Your task to perform on an android device: Open maps Image 0: 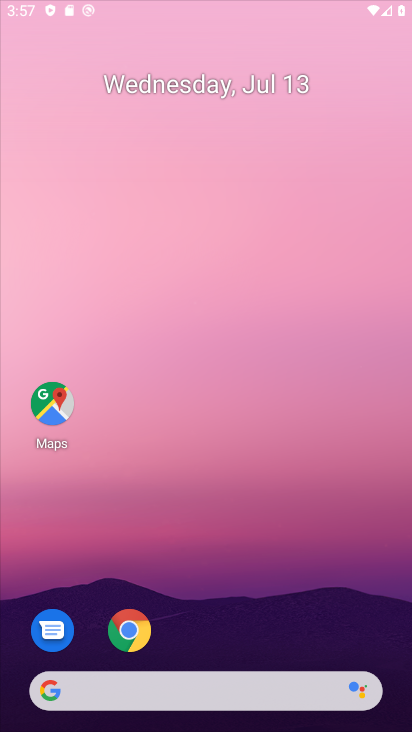
Step 0: press home button
Your task to perform on an android device: Open maps Image 1: 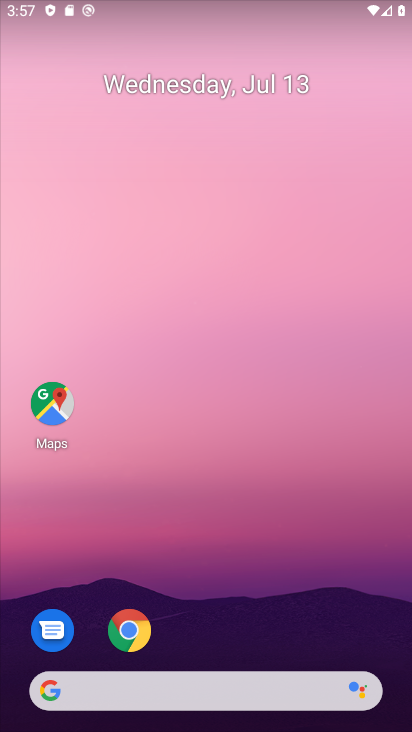
Step 1: drag from (221, 641) to (269, 60)
Your task to perform on an android device: Open maps Image 2: 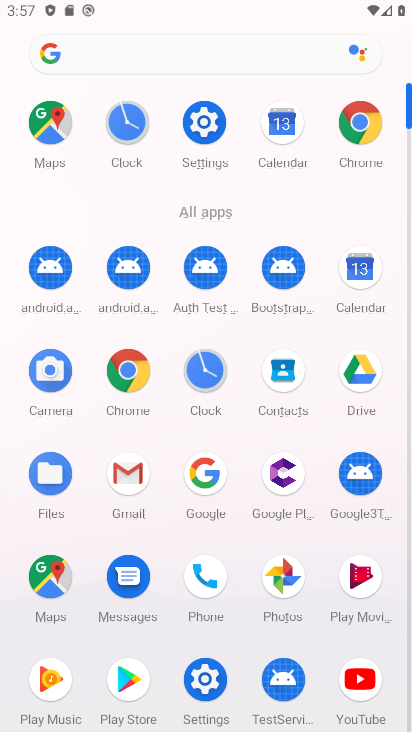
Step 2: click (56, 121)
Your task to perform on an android device: Open maps Image 3: 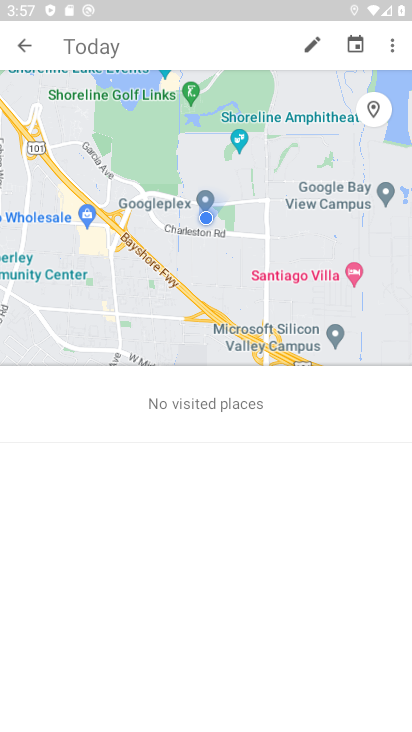
Step 3: task complete